Your task to perform on an android device: change notifications settings Image 0: 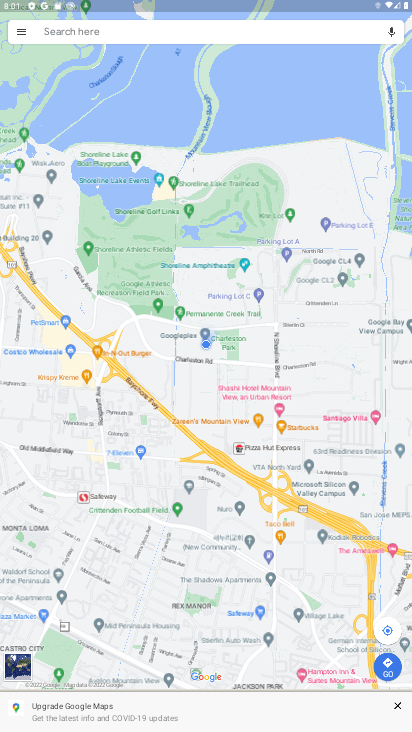
Step 0: press home button
Your task to perform on an android device: change notifications settings Image 1: 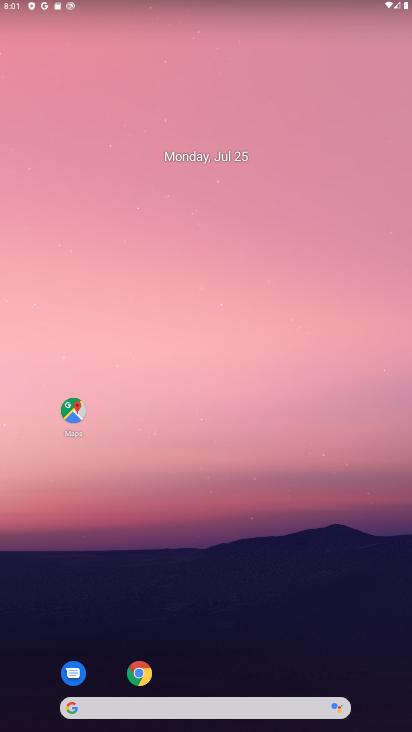
Step 1: drag from (267, 686) to (268, 78)
Your task to perform on an android device: change notifications settings Image 2: 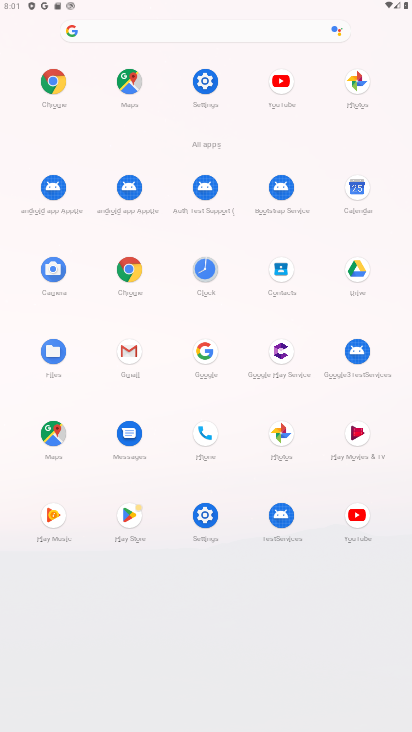
Step 2: click (208, 536)
Your task to perform on an android device: change notifications settings Image 3: 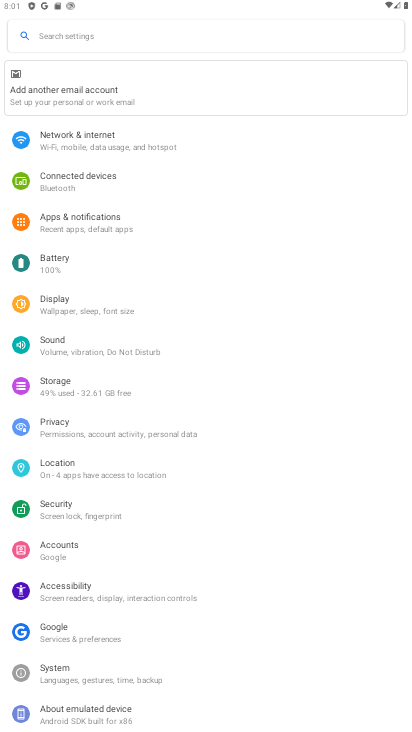
Step 3: click (104, 224)
Your task to perform on an android device: change notifications settings Image 4: 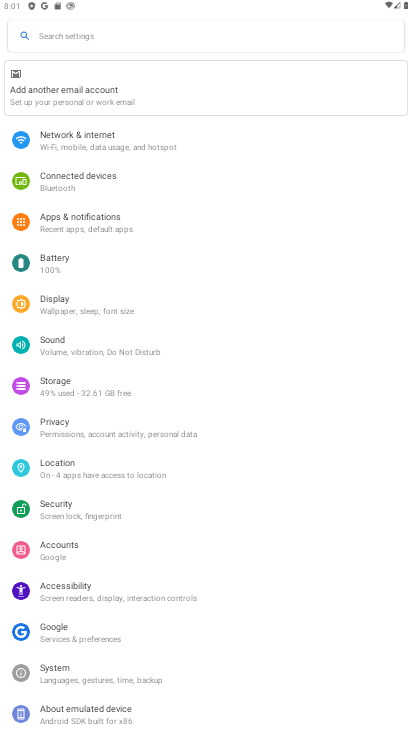
Step 4: task complete